Your task to perform on an android device: toggle location history Image 0: 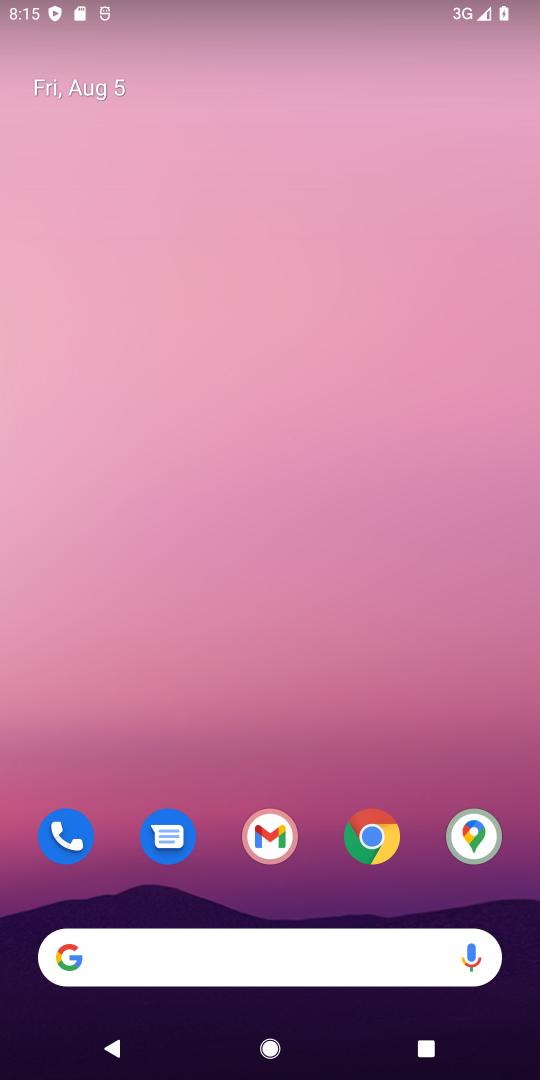
Step 0: drag from (216, 757) to (213, 60)
Your task to perform on an android device: toggle location history Image 1: 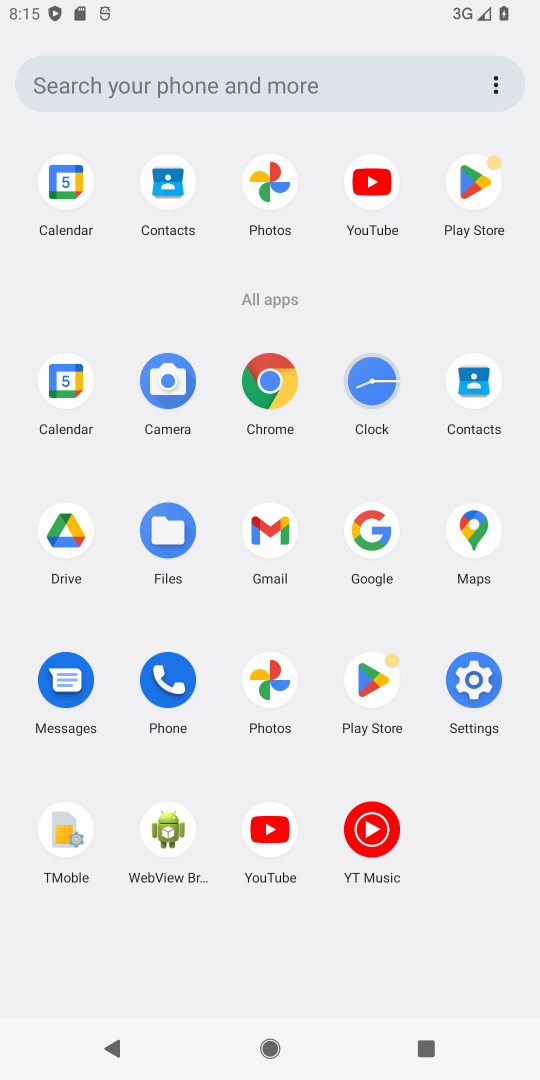
Step 1: click (476, 680)
Your task to perform on an android device: toggle location history Image 2: 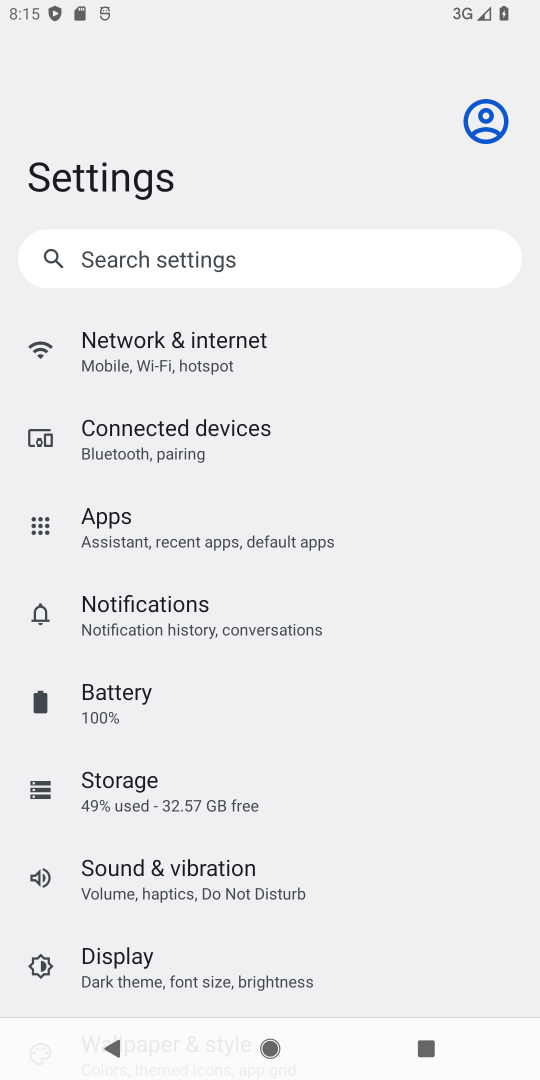
Step 2: drag from (365, 957) to (402, 316)
Your task to perform on an android device: toggle location history Image 3: 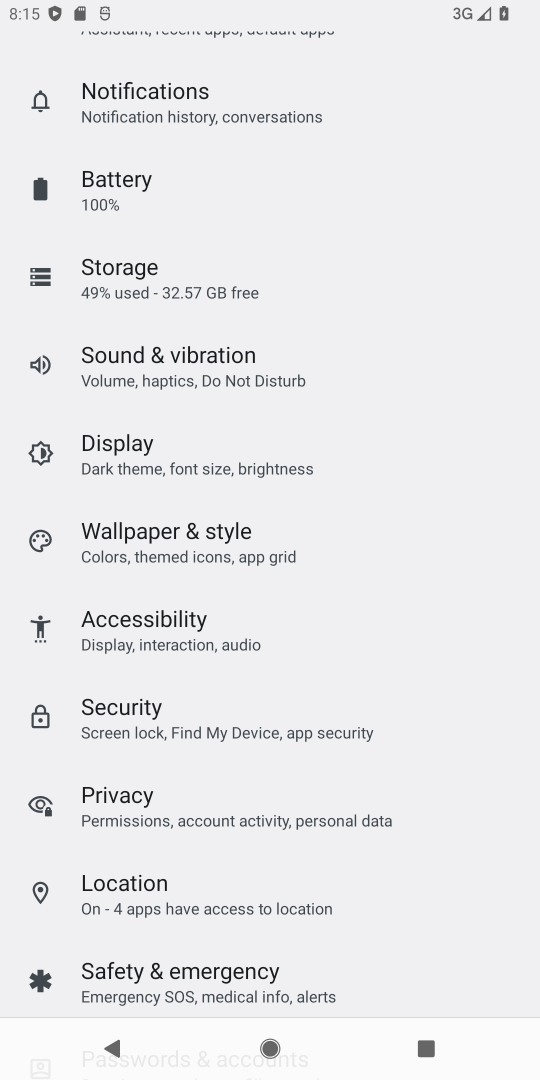
Step 3: click (128, 885)
Your task to perform on an android device: toggle location history Image 4: 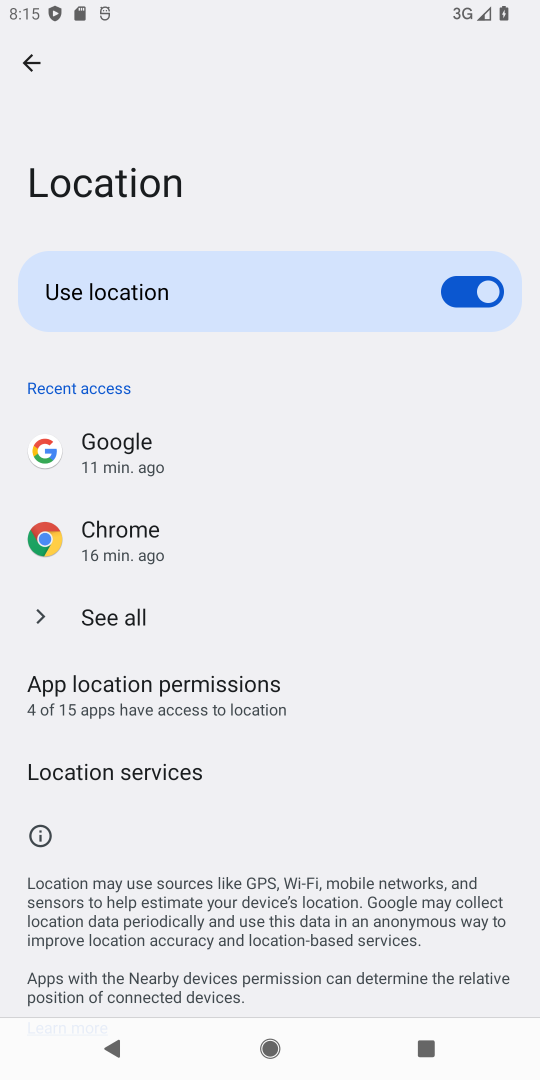
Step 4: click (144, 772)
Your task to perform on an android device: toggle location history Image 5: 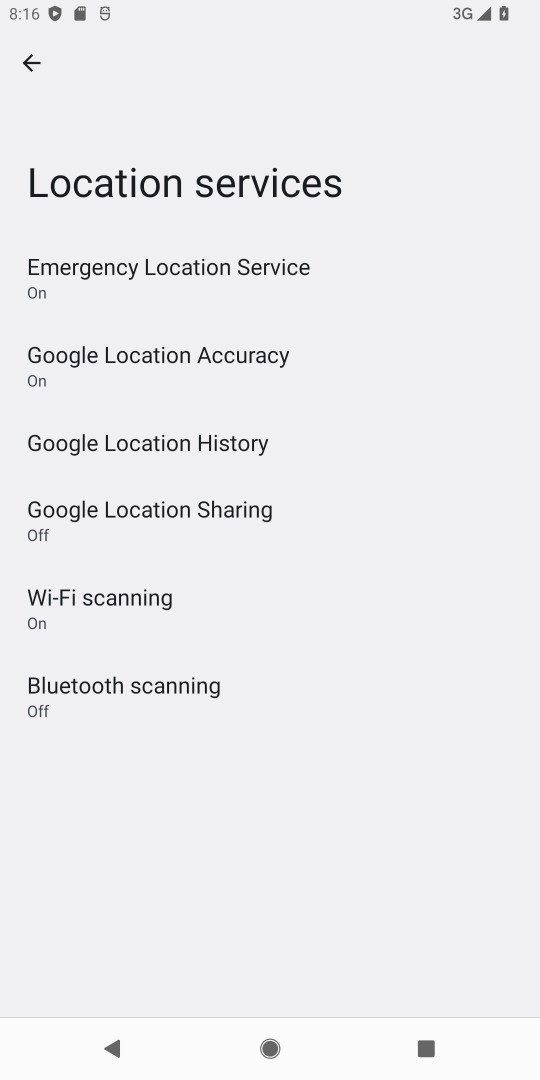
Step 5: click (151, 439)
Your task to perform on an android device: toggle location history Image 6: 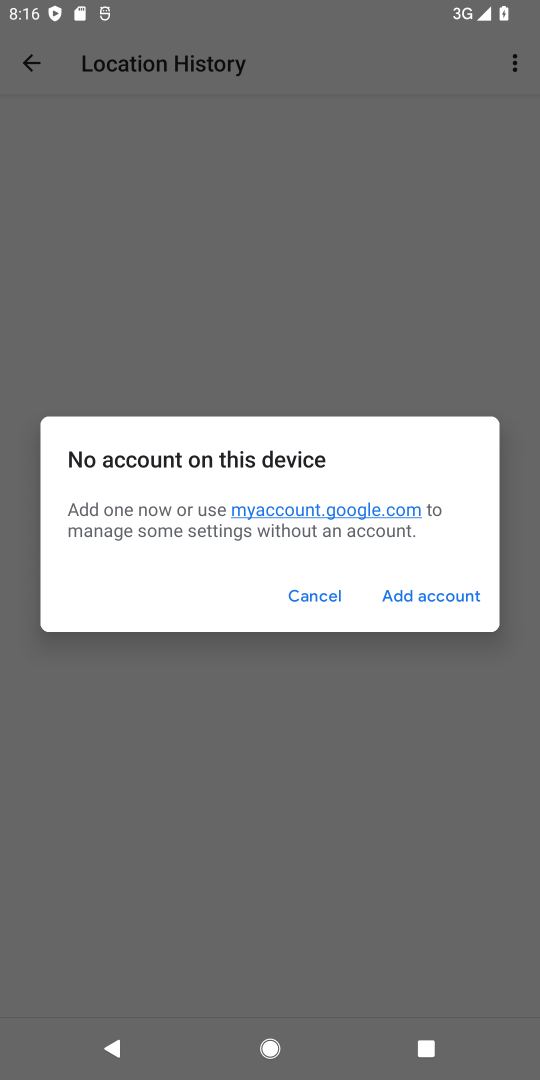
Step 6: click (416, 592)
Your task to perform on an android device: toggle location history Image 7: 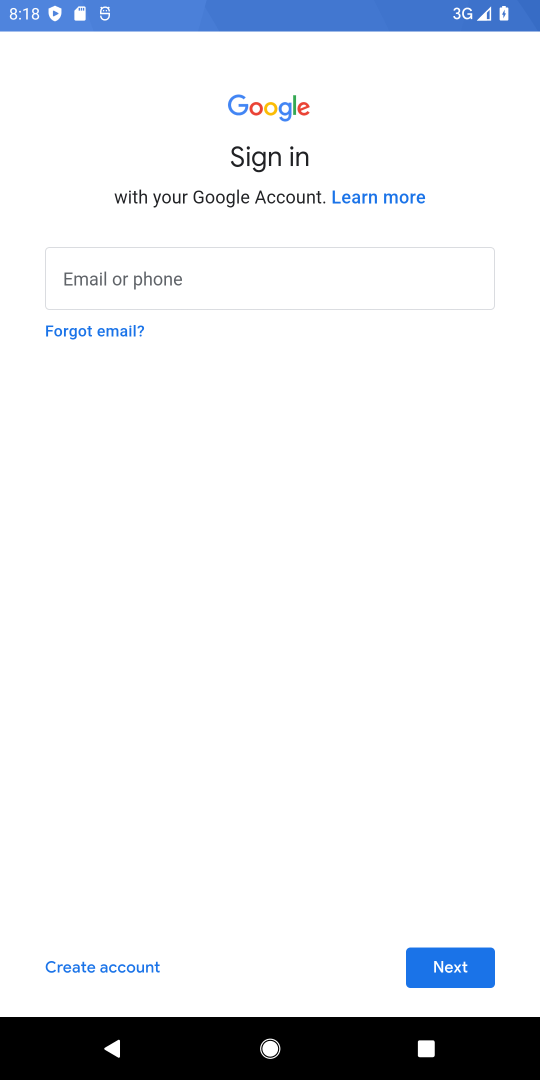
Step 7: task complete